Your task to perform on an android device: Go to CNN.com Image 0: 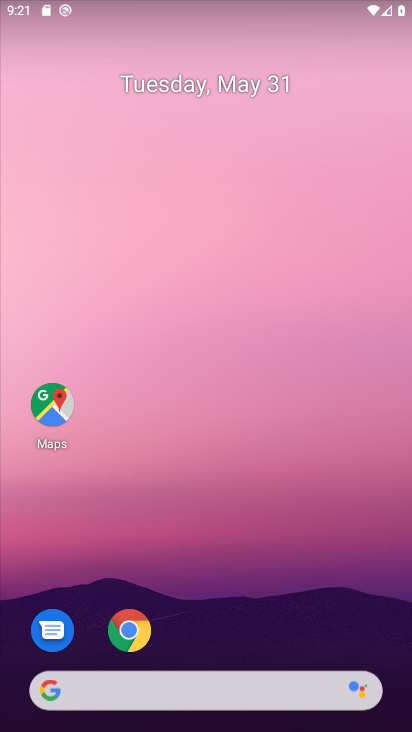
Step 0: click (151, 637)
Your task to perform on an android device: Go to CNN.com Image 1: 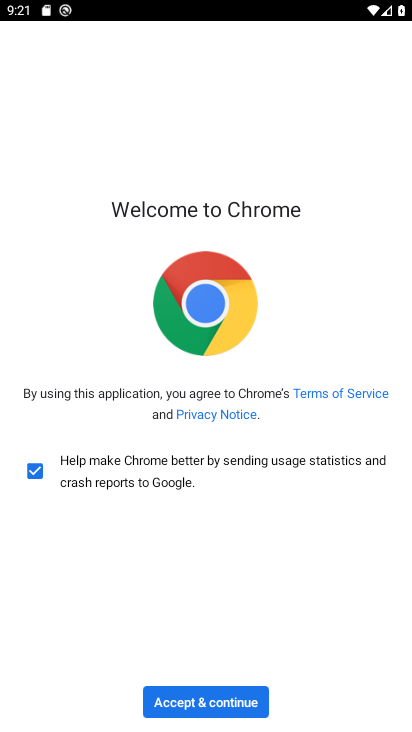
Step 1: click (247, 705)
Your task to perform on an android device: Go to CNN.com Image 2: 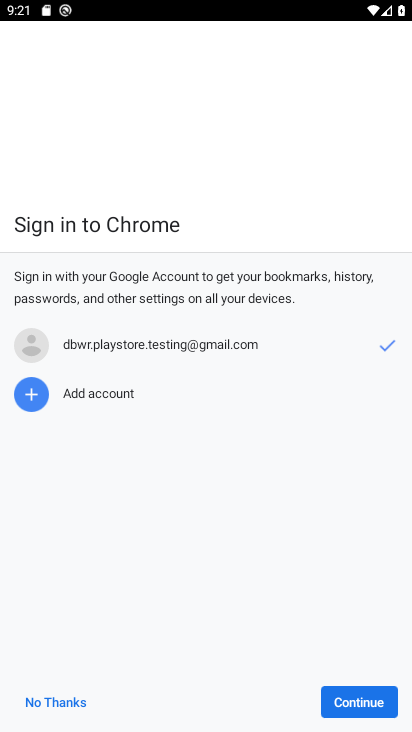
Step 2: click (345, 703)
Your task to perform on an android device: Go to CNN.com Image 3: 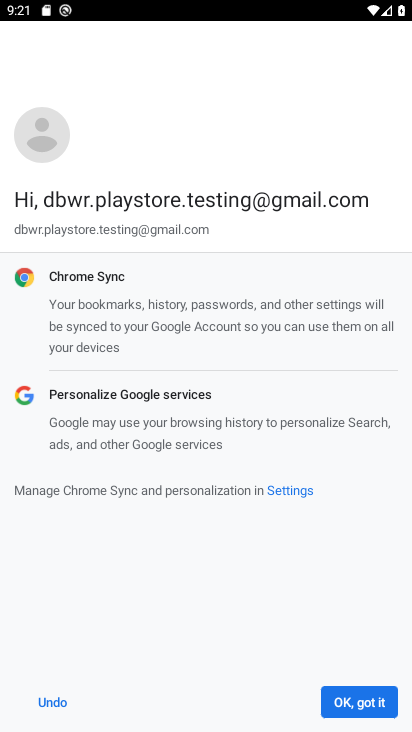
Step 3: click (345, 703)
Your task to perform on an android device: Go to CNN.com Image 4: 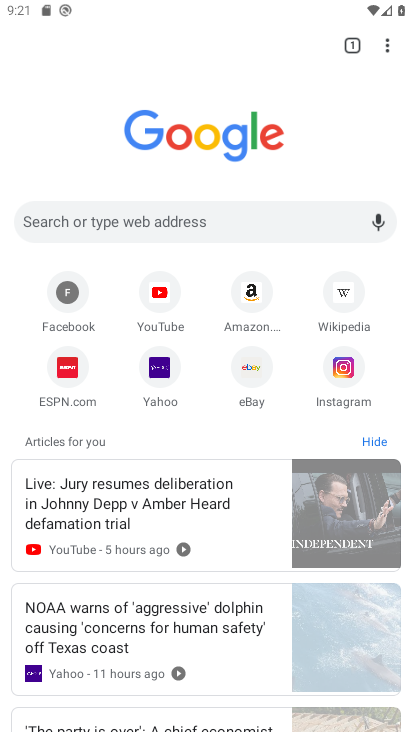
Step 4: click (176, 228)
Your task to perform on an android device: Go to CNN.com Image 5: 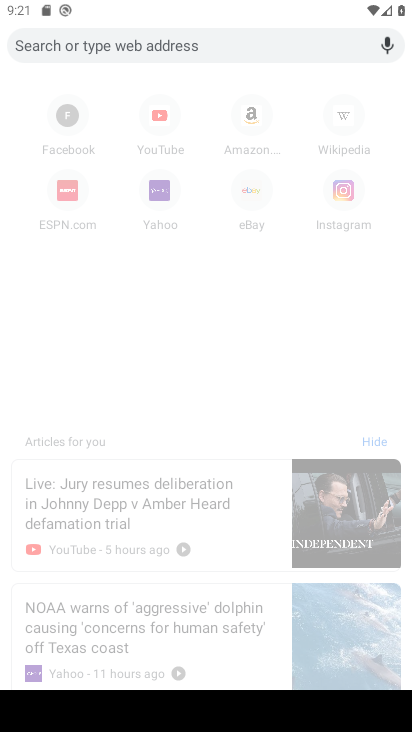
Step 5: type "cnn.com"
Your task to perform on an android device: Go to CNN.com Image 6: 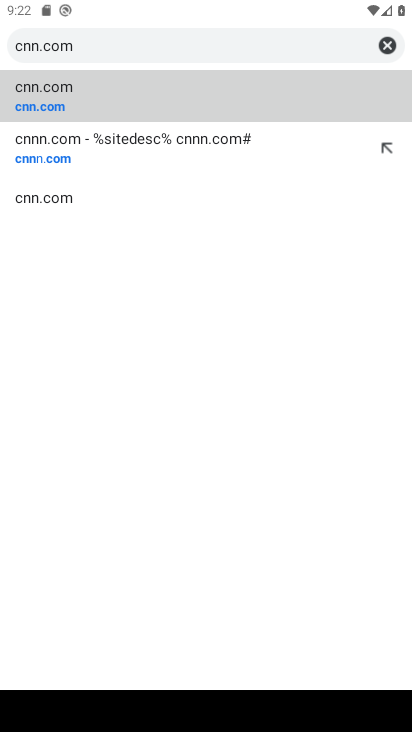
Step 6: click (58, 99)
Your task to perform on an android device: Go to CNN.com Image 7: 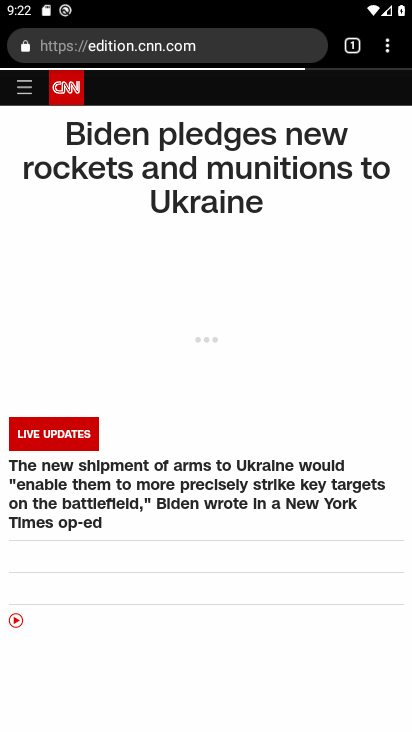
Step 7: task complete